Your task to perform on an android device: change the clock display to analog Image 0: 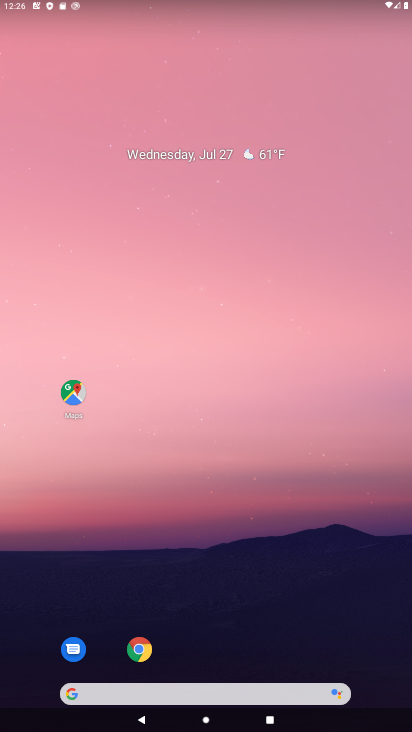
Step 0: drag from (226, 650) to (223, 137)
Your task to perform on an android device: change the clock display to analog Image 1: 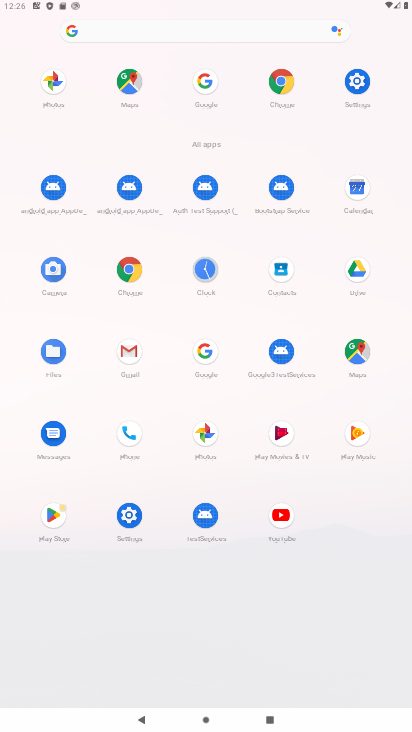
Step 1: click (206, 260)
Your task to perform on an android device: change the clock display to analog Image 2: 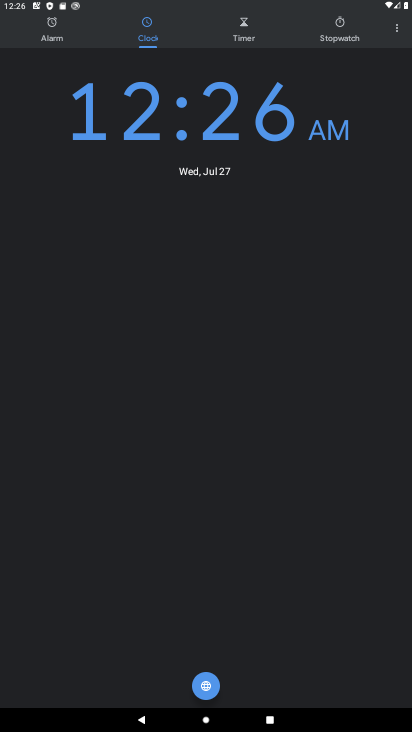
Step 2: click (404, 33)
Your task to perform on an android device: change the clock display to analog Image 3: 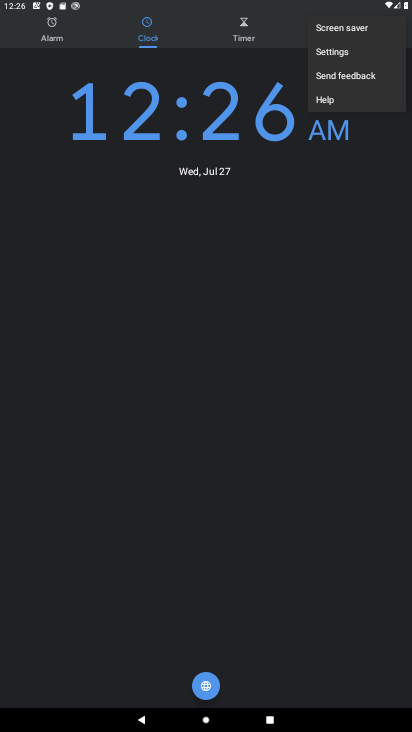
Step 3: click (353, 56)
Your task to perform on an android device: change the clock display to analog Image 4: 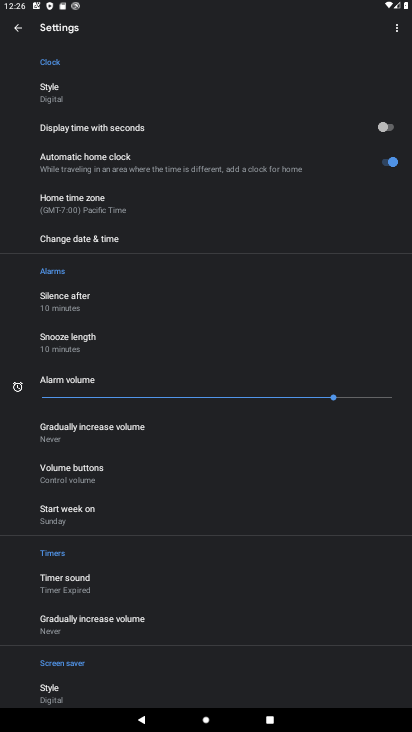
Step 4: click (190, 87)
Your task to perform on an android device: change the clock display to analog Image 5: 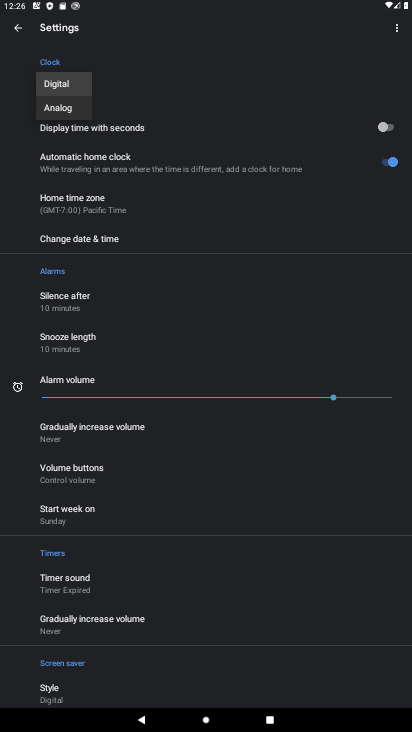
Step 5: click (78, 107)
Your task to perform on an android device: change the clock display to analog Image 6: 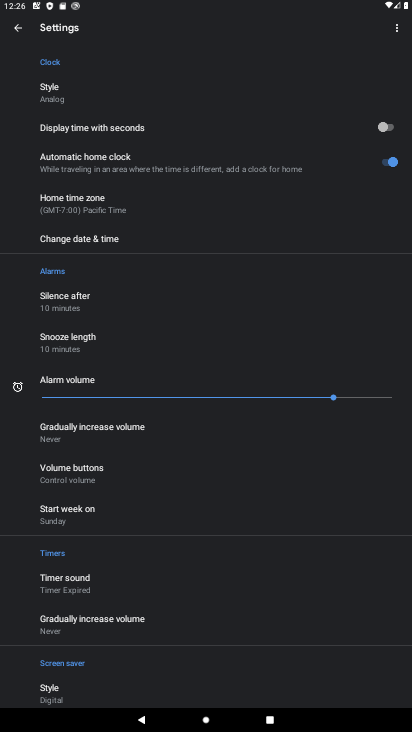
Step 6: task complete